Your task to perform on an android device: Open the map Image 0: 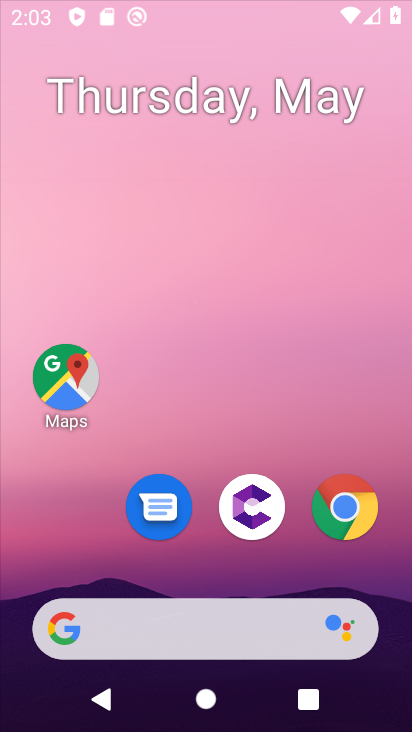
Step 0: press home button
Your task to perform on an android device: Open the map Image 1: 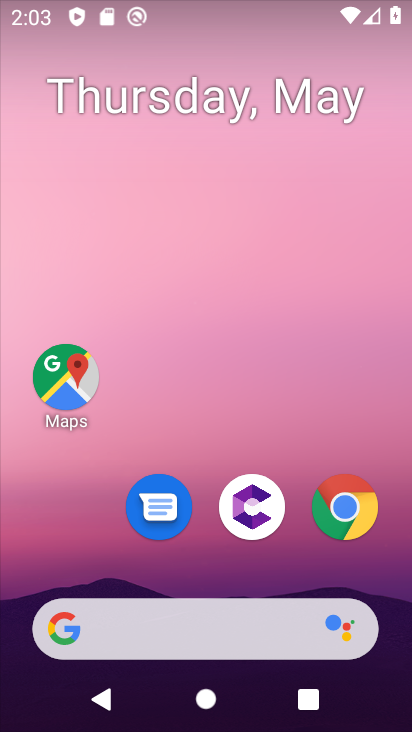
Step 1: click (65, 384)
Your task to perform on an android device: Open the map Image 2: 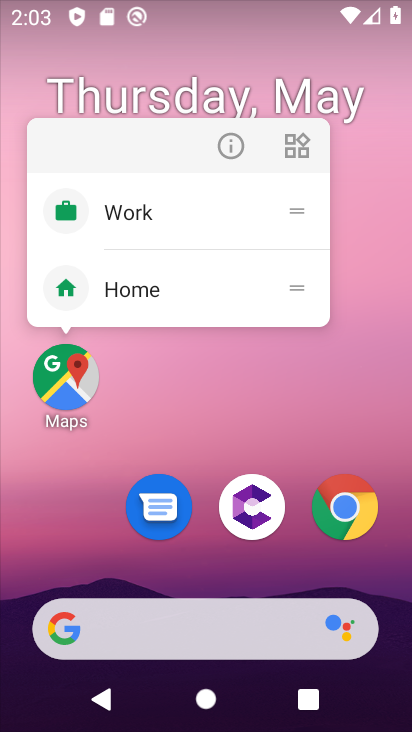
Step 2: click (65, 383)
Your task to perform on an android device: Open the map Image 3: 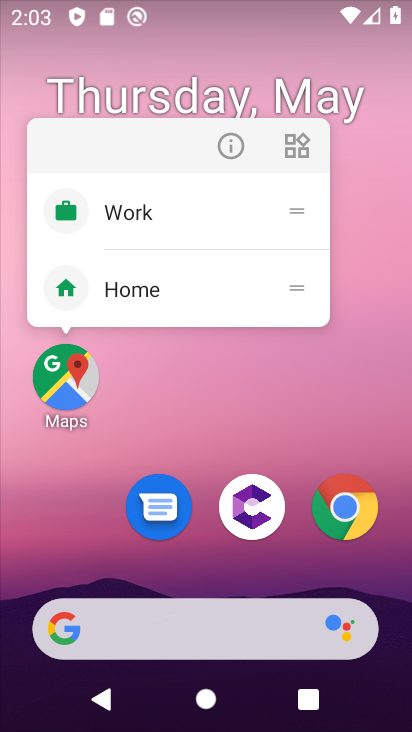
Step 3: click (68, 390)
Your task to perform on an android device: Open the map Image 4: 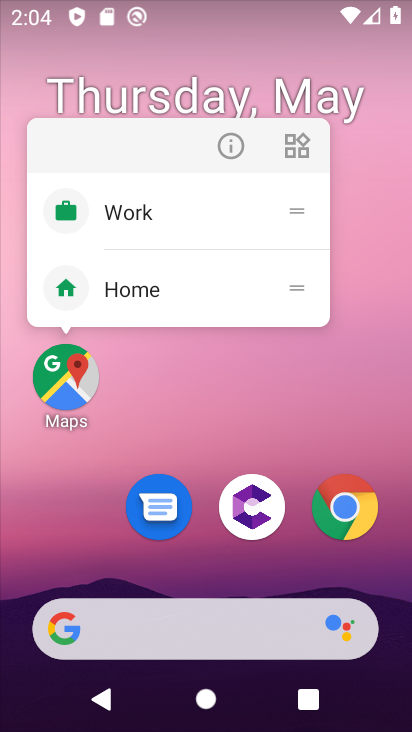
Step 4: click (188, 404)
Your task to perform on an android device: Open the map Image 5: 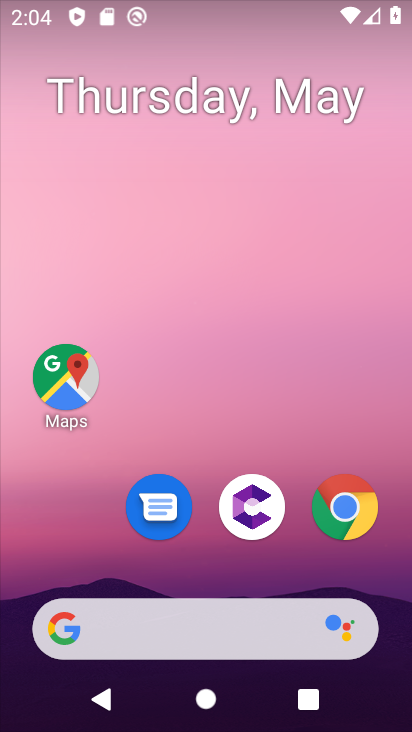
Step 5: click (68, 403)
Your task to perform on an android device: Open the map Image 6: 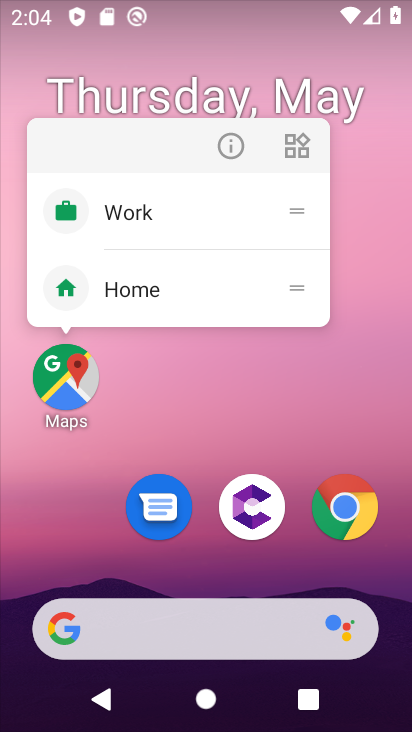
Step 6: click (67, 398)
Your task to perform on an android device: Open the map Image 7: 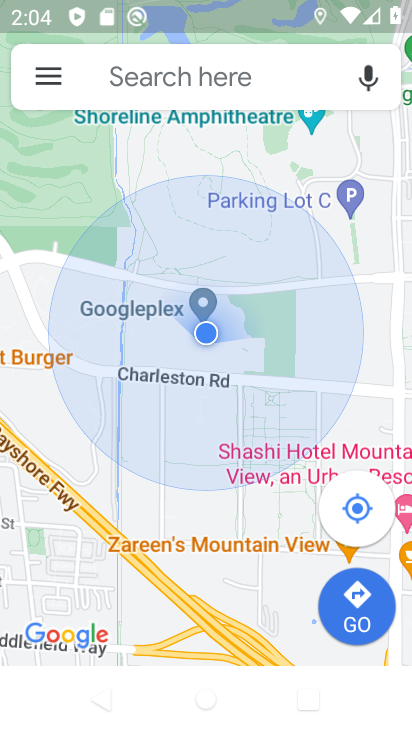
Step 7: task complete